Your task to perform on an android device: turn off translation in the chrome app Image 0: 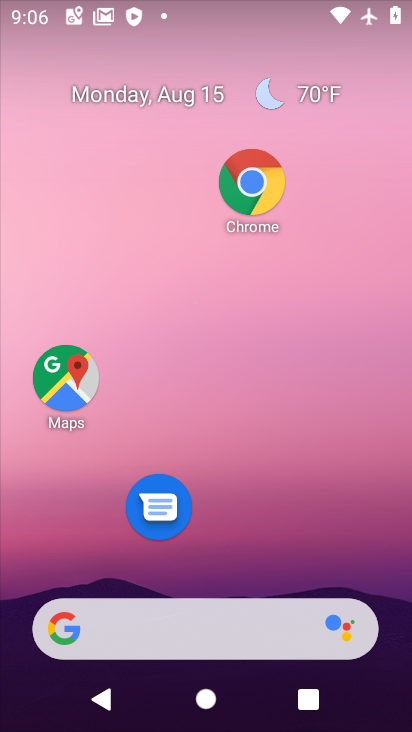
Step 0: click (225, 188)
Your task to perform on an android device: turn off translation in the chrome app Image 1: 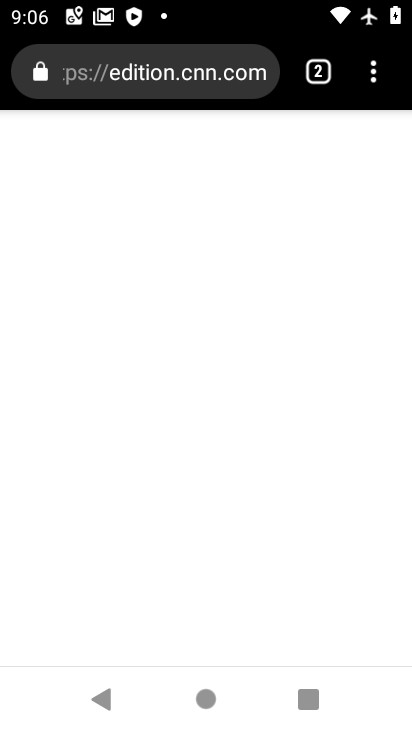
Step 1: click (367, 83)
Your task to perform on an android device: turn off translation in the chrome app Image 2: 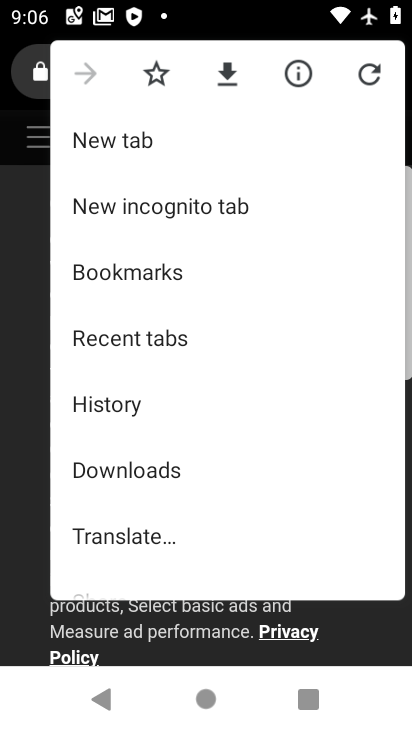
Step 2: click (113, 549)
Your task to perform on an android device: turn off translation in the chrome app Image 3: 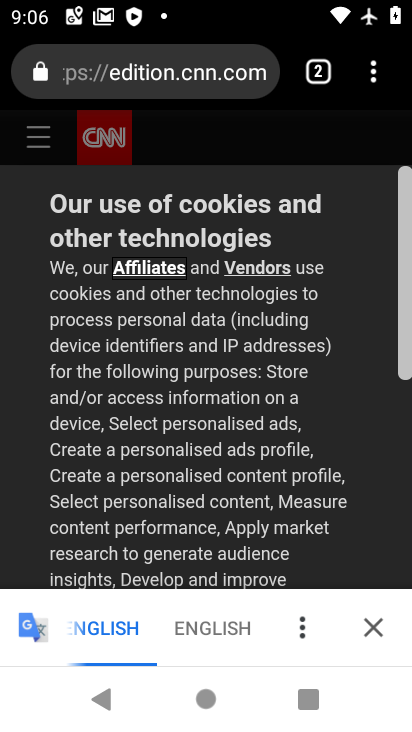
Step 3: task complete